Your task to perform on an android device: open app "NewsBreak: Local News & Alerts" (install if not already installed) Image 0: 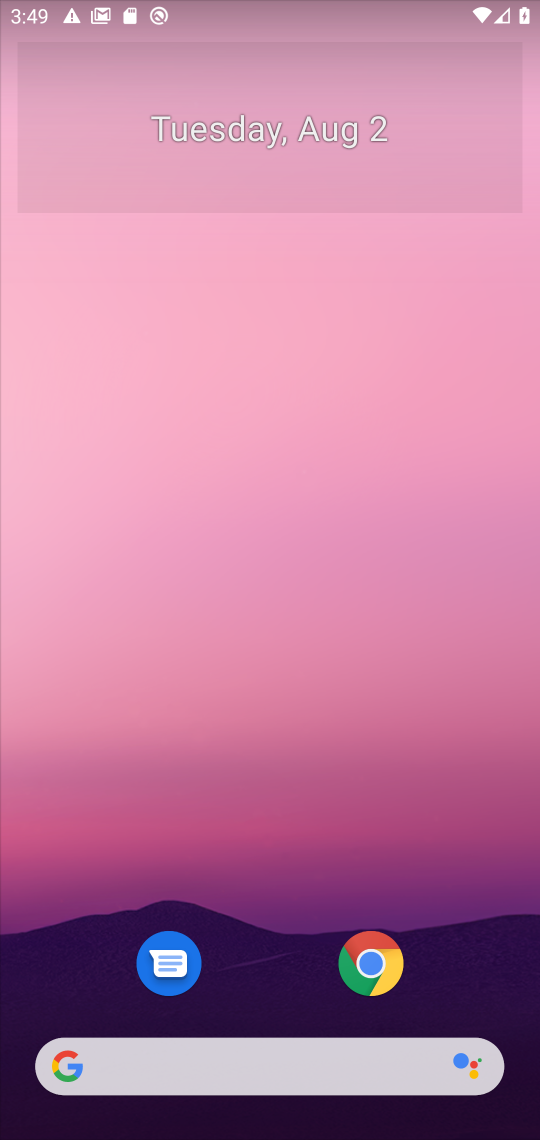
Step 0: press home button
Your task to perform on an android device: open app "NewsBreak: Local News & Alerts" (install if not already installed) Image 1: 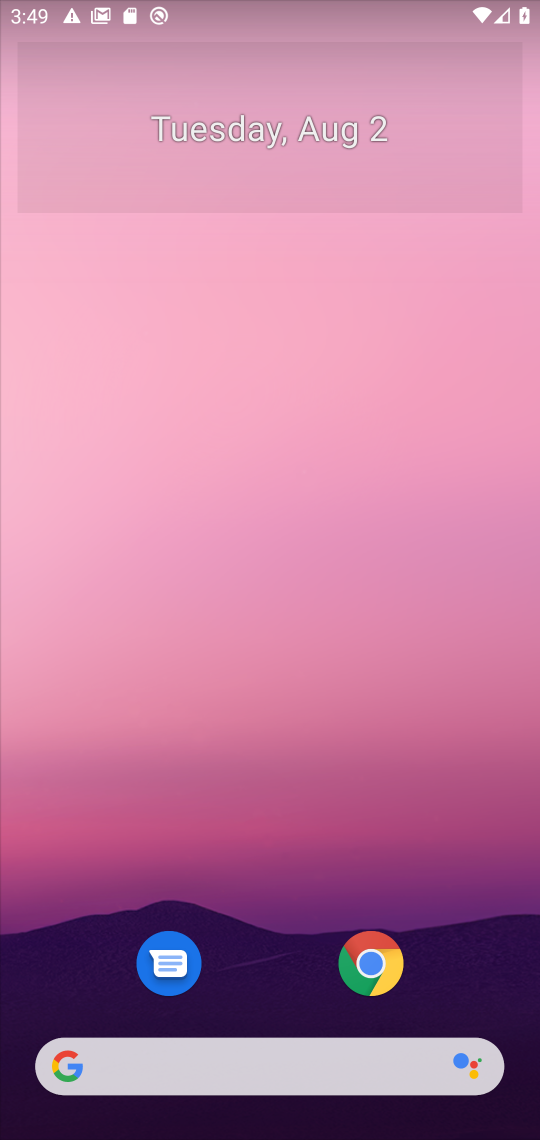
Step 1: drag from (203, 1061) to (168, 346)
Your task to perform on an android device: open app "NewsBreak: Local News & Alerts" (install if not already installed) Image 2: 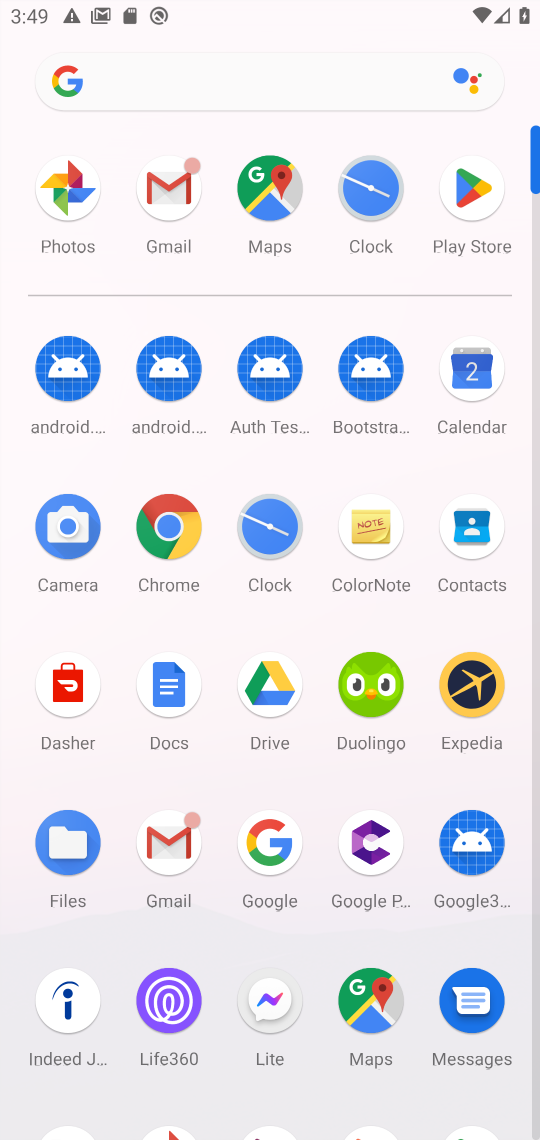
Step 2: click (474, 197)
Your task to perform on an android device: open app "NewsBreak: Local News & Alerts" (install if not already installed) Image 3: 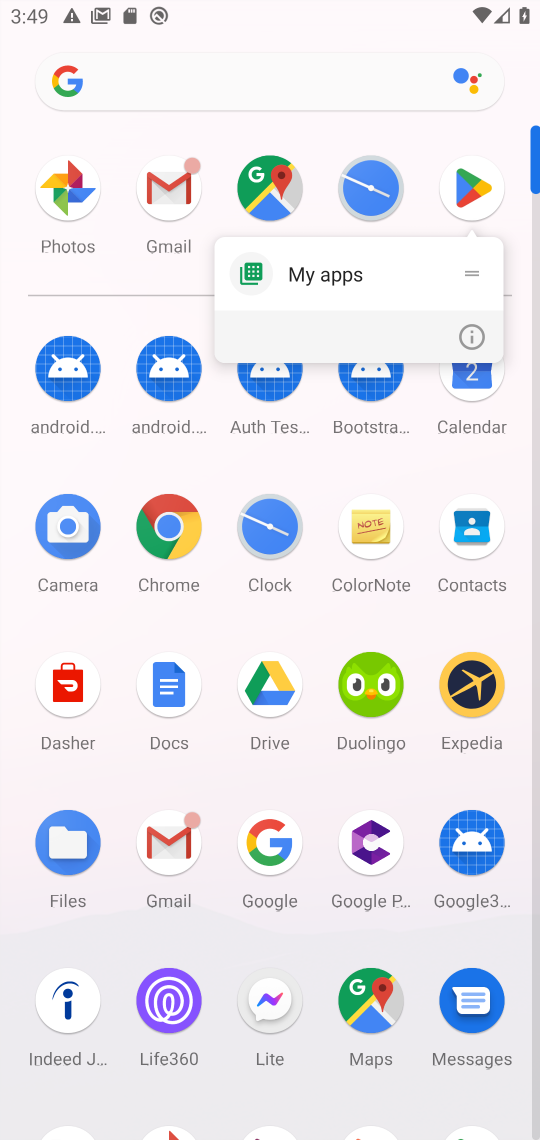
Step 3: click (467, 184)
Your task to perform on an android device: open app "NewsBreak: Local News & Alerts" (install if not already installed) Image 4: 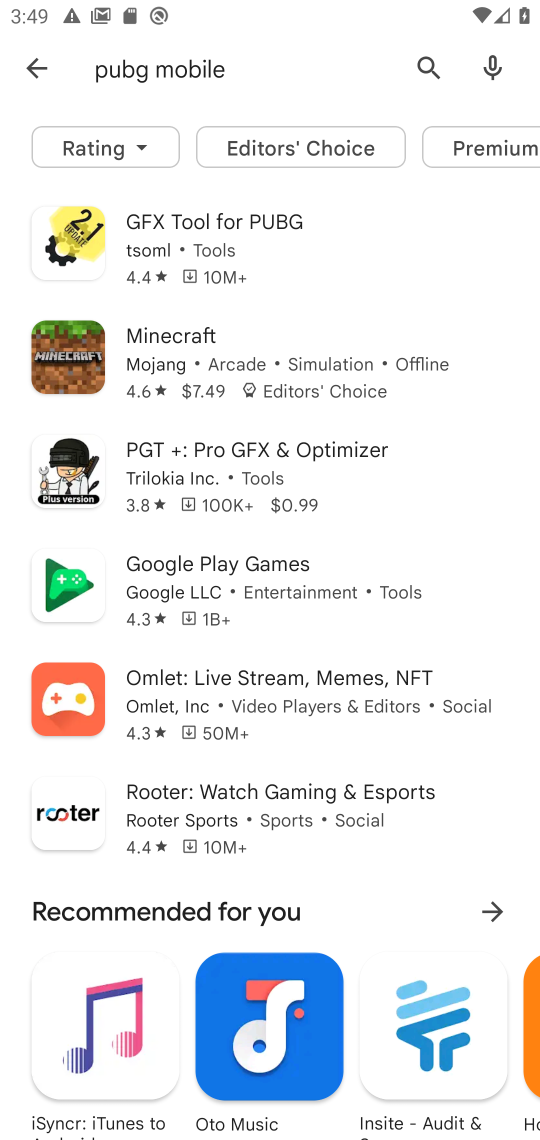
Step 4: click (403, 61)
Your task to perform on an android device: open app "NewsBreak: Local News & Alerts" (install if not already installed) Image 5: 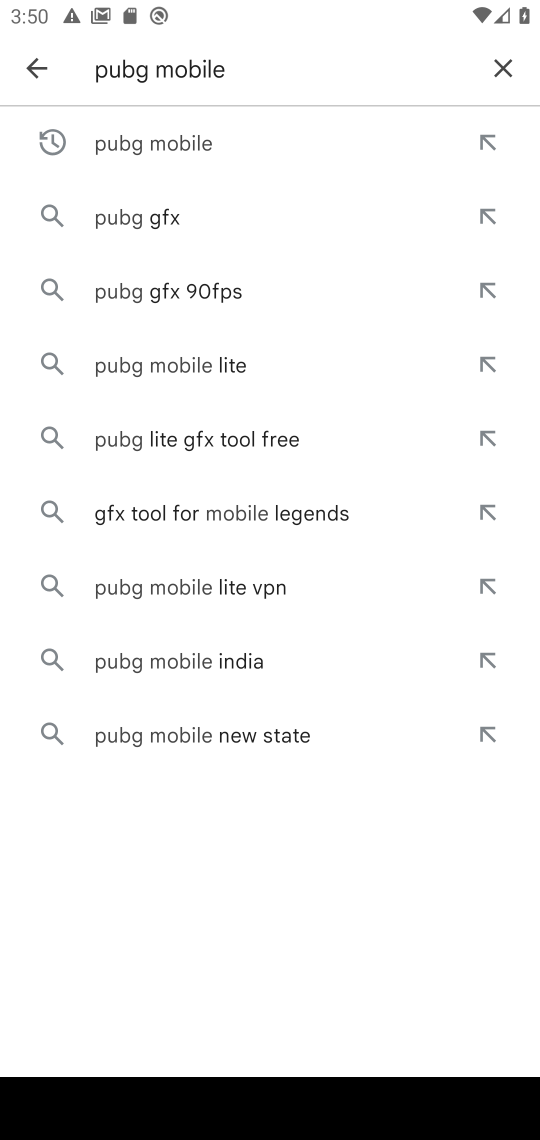
Step 5: click (492, 62)
Your task to perform on an android device: open app "NewsBreak: Local News & Alerts" (install if not already installed) Image 6: 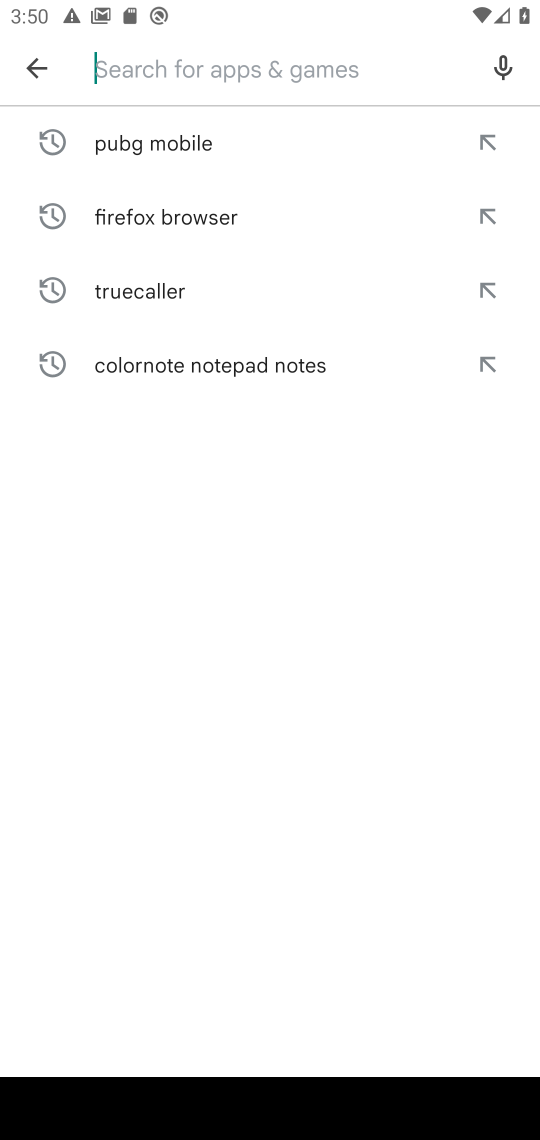
Step 6: type "NewsBreak: Local News & Alerts"
Your task to perform on an android device: open app "NewsBreak: Local News & Alerts" (install if not already installed) Image 7: 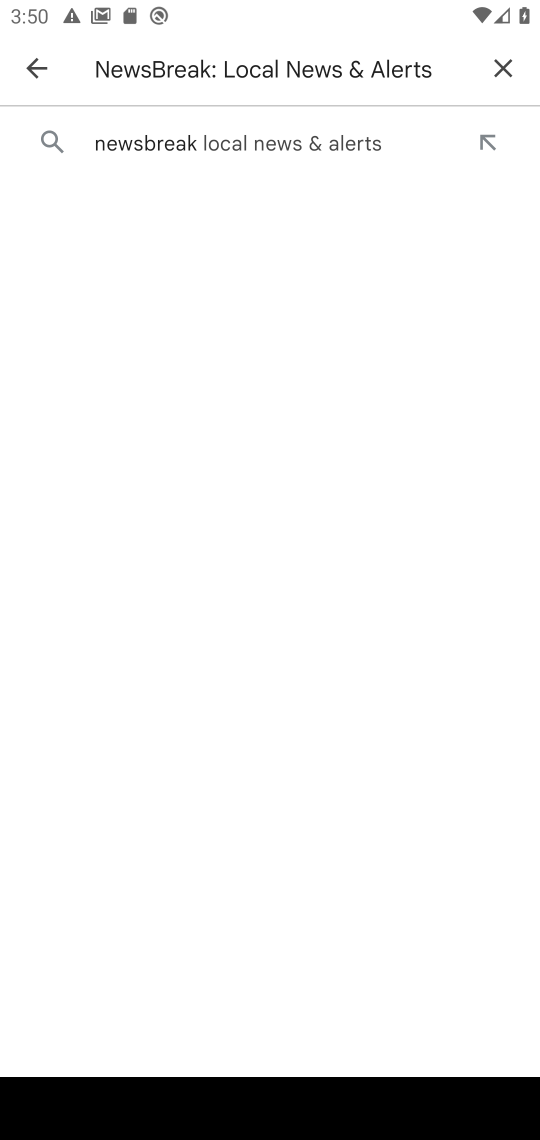
Step 7: click (128, 136)
Your task to perform on an android device: open app "NewsBreak: Local News & Alerts" (install if not already installed) Image 8: 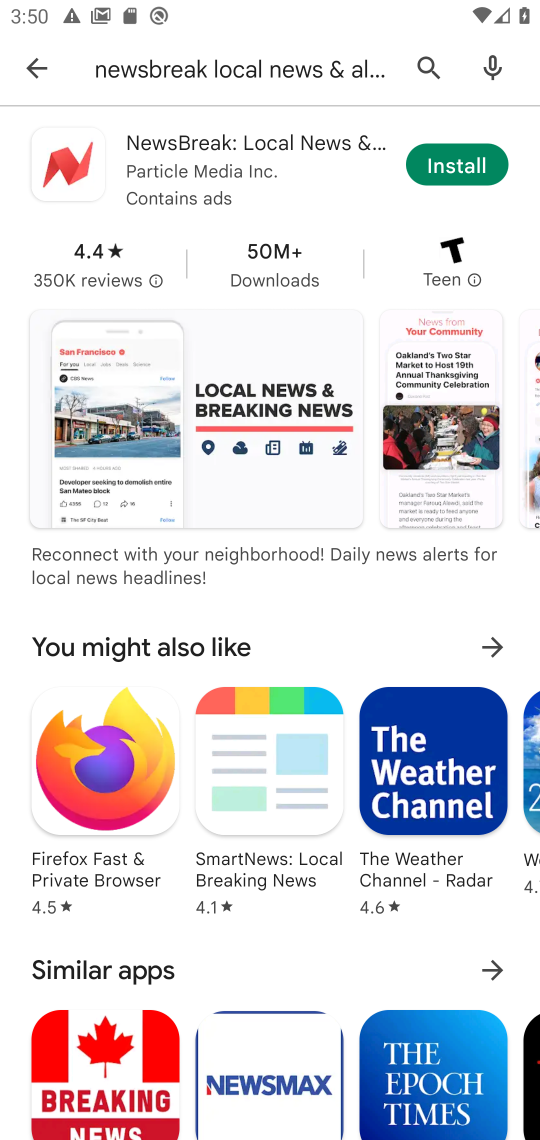
Step 8: click (420, 163)
Your task to perform on an android device: open app "NewsBreak: Local News & Alerts" (install if not already installed) Image 9: 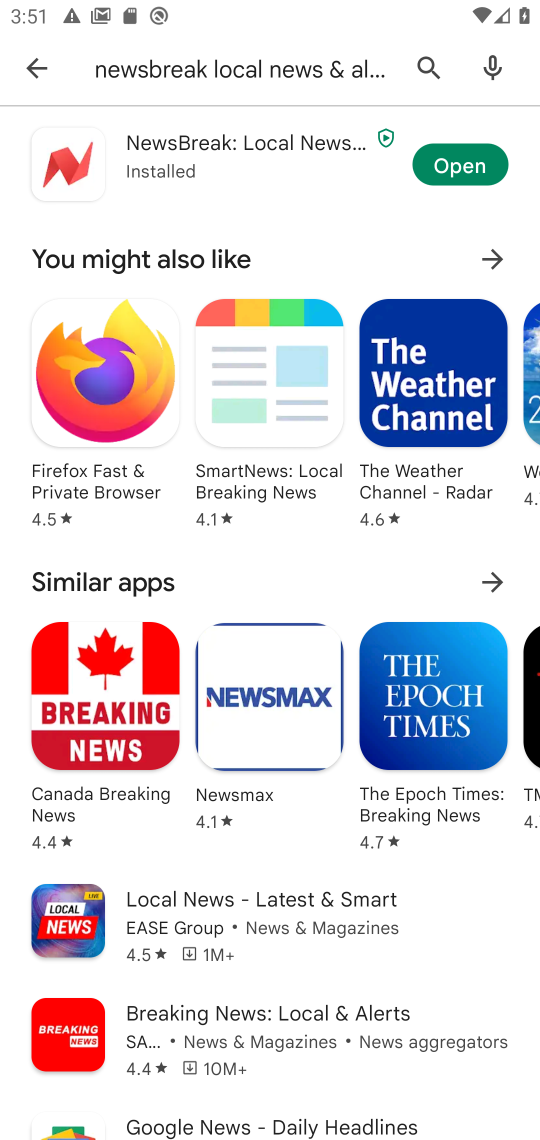
Step 9: click (452, 157)
Your task to perform on an android device: open app "NewsBreak: Local News & Alerts" (install if not already installed) Image 10: 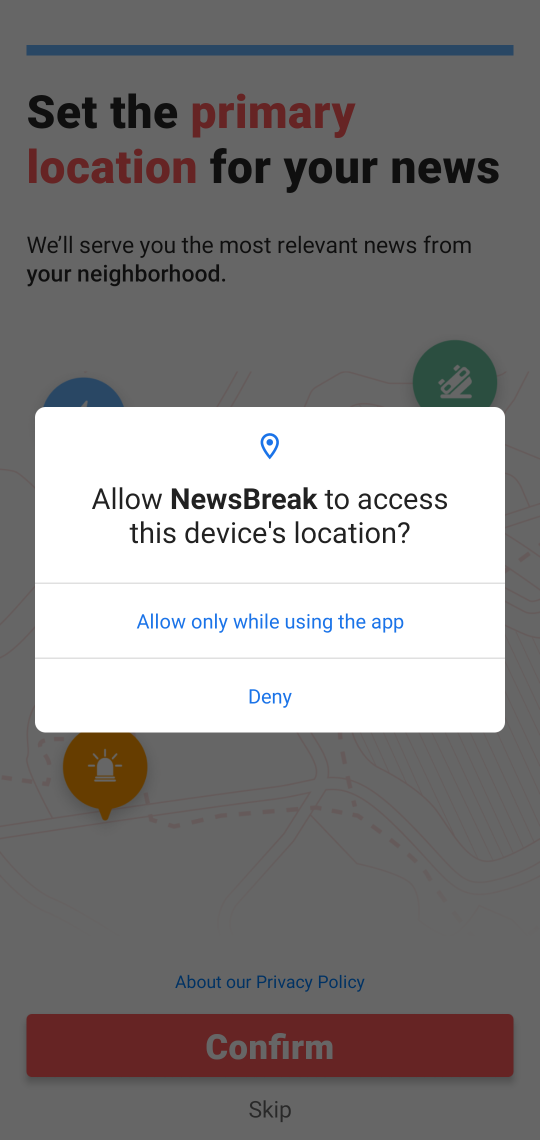
Step 10: task complete